Your task to perform on an android device: turn off smart reply in the gmail app Image 0: 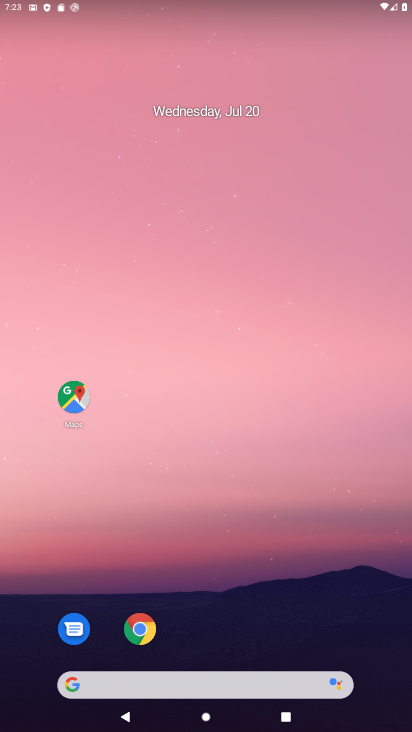
Step 0: drag from (159, 686) to (207, 305)
Your task to perform on an android device: turn off smart reply in the gmail app Image 1: 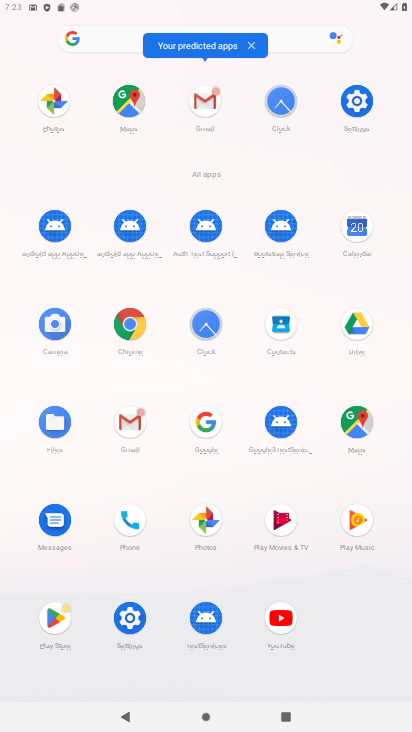
Step 1: click (206, 95)
Your task to perform on an android device: turn off smart reply in the gmail app Image 2: 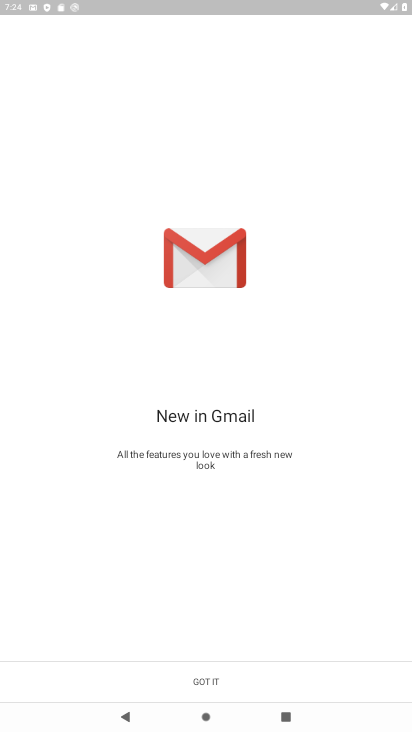
Step 2: click (213, 679)
Your task to perform on an android device: turn off smart reply in the gmail app Image 3: 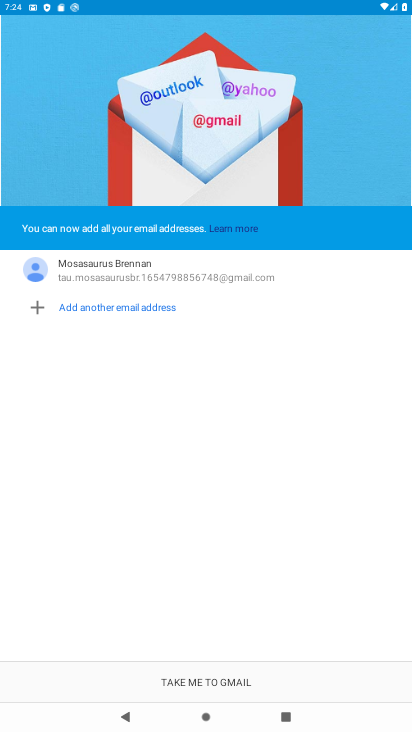
Step 3: click (213, 678)
Your task to perform on an android device: turn off smart reply in the gmail app Image 4: 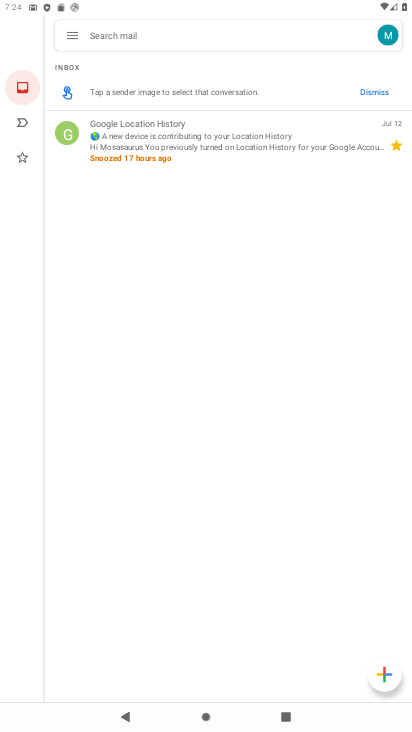
Step 4: click (66, 38)
Your task to perform on an android device: turn off smart reply in the gmail app Image 5: 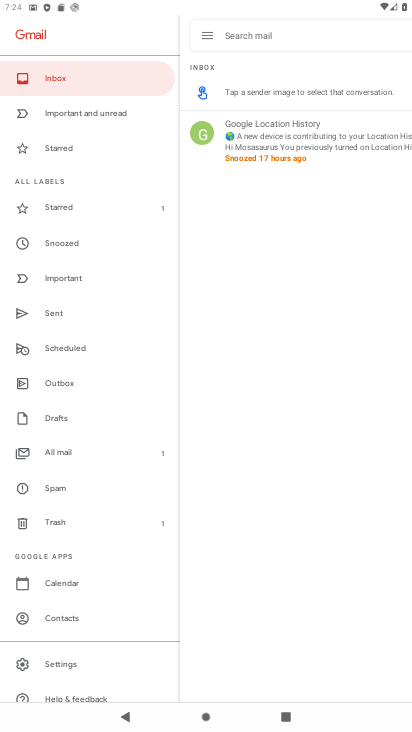
Step 5: drag from (97, 604) to (107, 273)
Your task to perform on an android device: turn off smart reply in the gmail app Image 6: 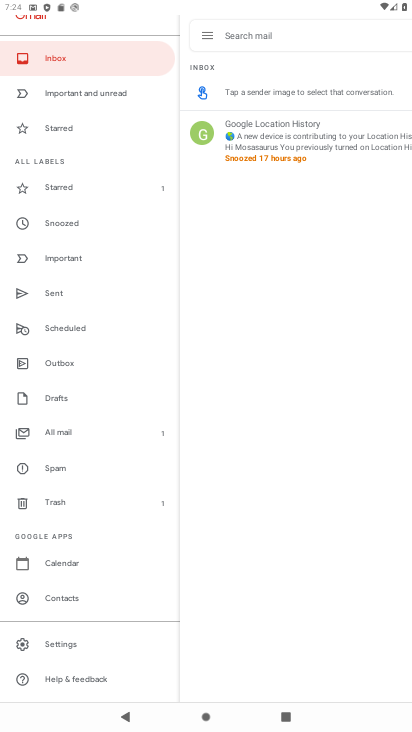
Step 6: click (51, 651)
Your task to perform on an android device: turn off smart reply in the gmail app Image 7: 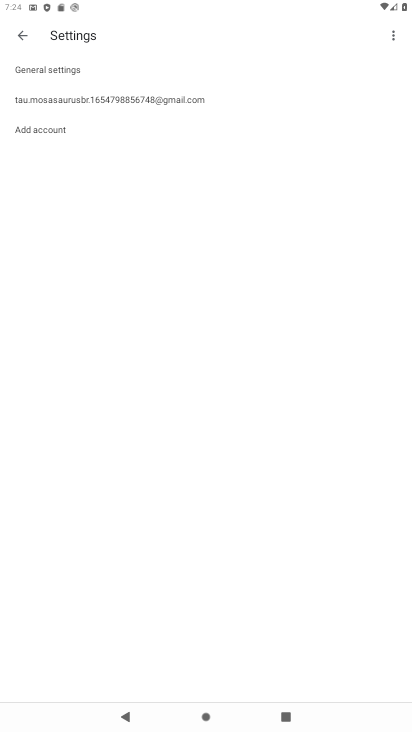
Step 7: click (139, 97)
Your task to perform on an android device: turn off smart reply in the gmail app Image 8: 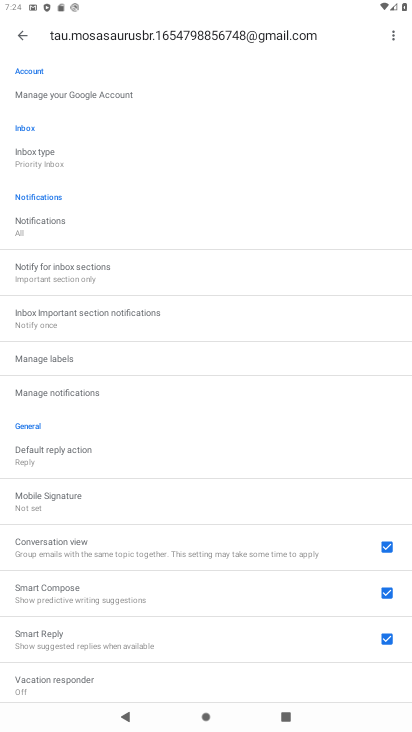
Step 8: click (387, 639)
Your task to perform on an android device: turn off smart reply in the gmail app Image 9: 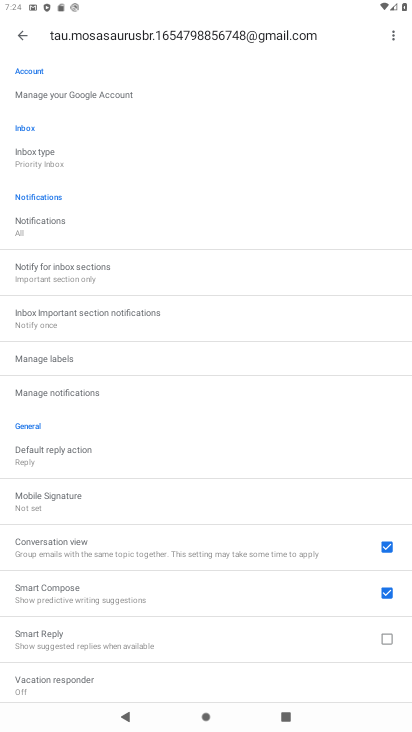
Step 9: task complete